Your task to perform on an android device: turn vacation reply on in the gmail app Image 0: 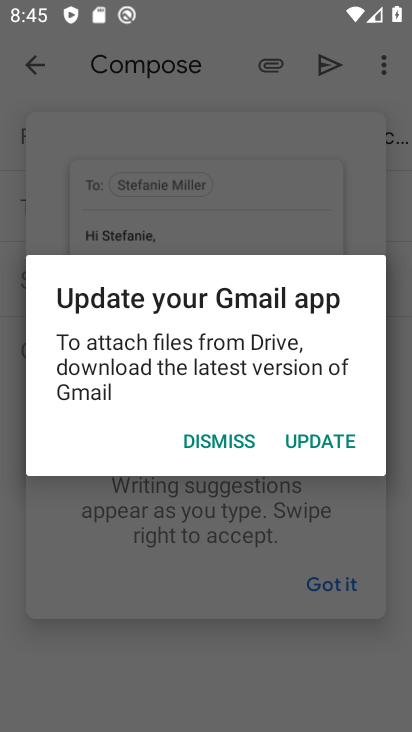
Step 0: click (236, 440)
Your task to perform on an android device: turn vacation reply on in the gmail app Image 1: 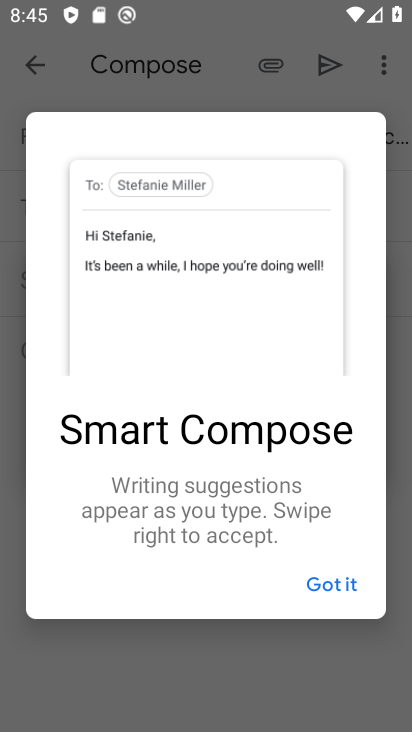
Step 1: click (334, 588)
Your task to perform on an android device: turn vacation reply on in the gmail app Image 2: 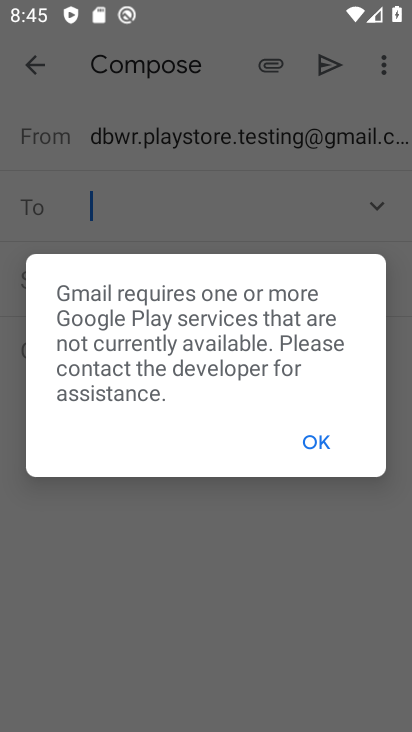
Step 2: click (30, 56)
Your task to perform on an android device: turn vacation reply on in the gmail app Image 3: 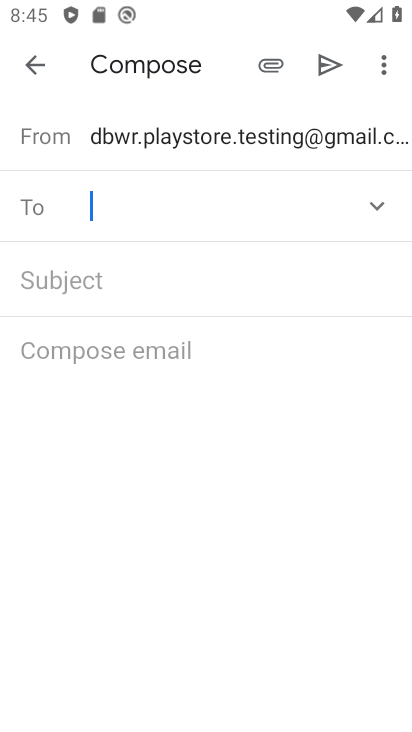
Step 3: click (34, 64)
Your task to perform on an android device: turn vacation reply on in the gmail app Image 4: 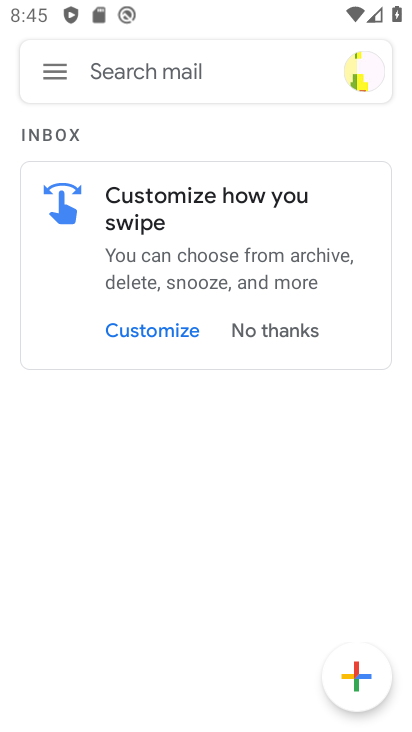
Step 4: click (59, 71)
Your task to perform on an android device: turn vacation reply on in the gmail app Image 5: 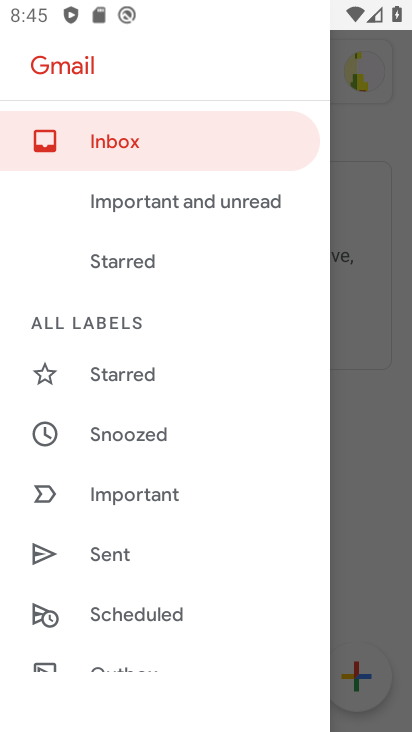
Step 5: drag from (127, 574) to (220, 87)
Your task to perform on an android device: turn vacation reply on in the gmail app Image 6: 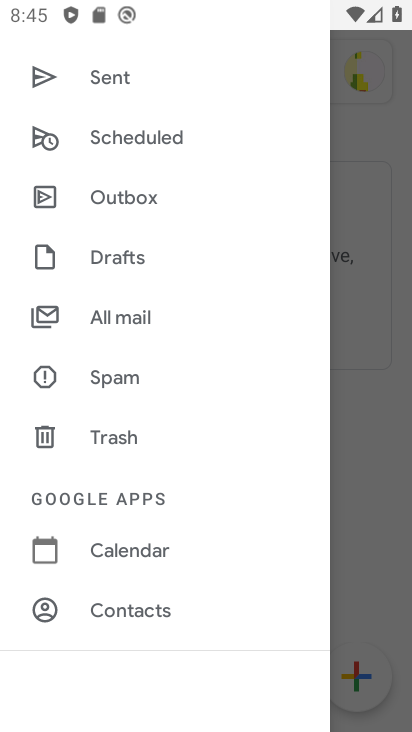
Step 6: drag from (133, 588) to (194, 145)
Your task to perform on an android device: turn vacation reply on in the gmail app Image 7: 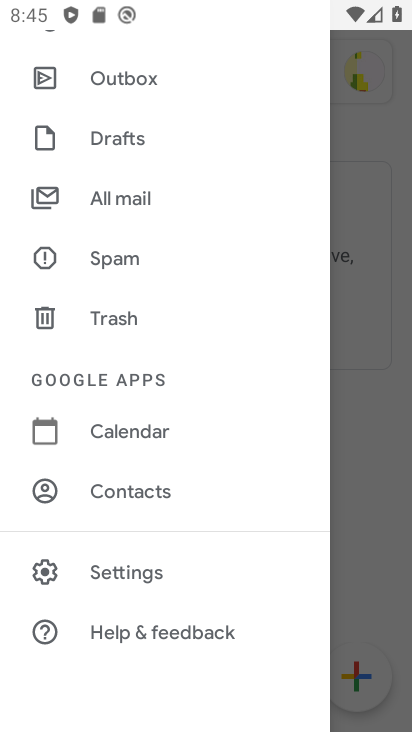
Step 7: click (132, 573)
Your task to perform on an android device: turn vacation reply on in the gmail app Image 8: 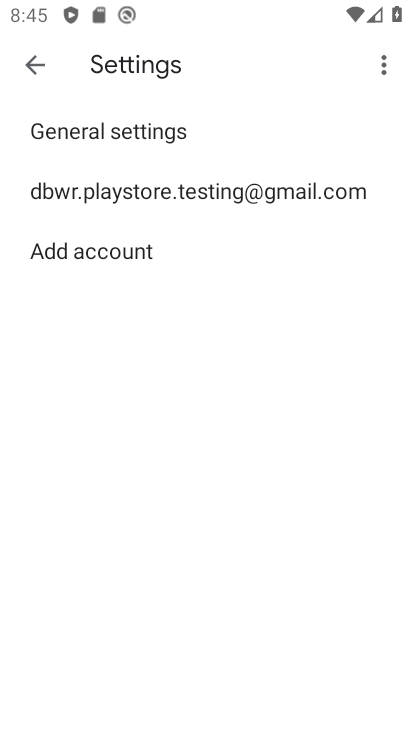
Step 8: click (128, 193)
Your task to perform on an android device: turn vacation reply on in the gmail app Image 9: 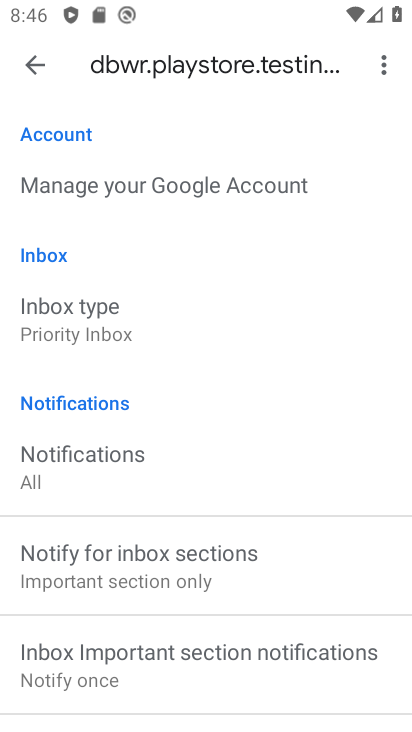
Step 9: drag from (103, 566) to (121, 263)
Your task to perform on an android device: turn vacation reply on in the gmail app Image 10: 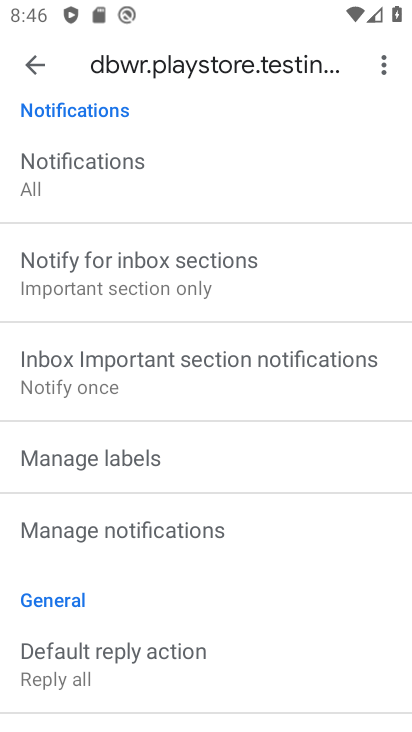
Step 10: drag from (102, 512) to (149, 140)
Your task to perform on an android device: turn vacation reply on in the gmail app Image 11: 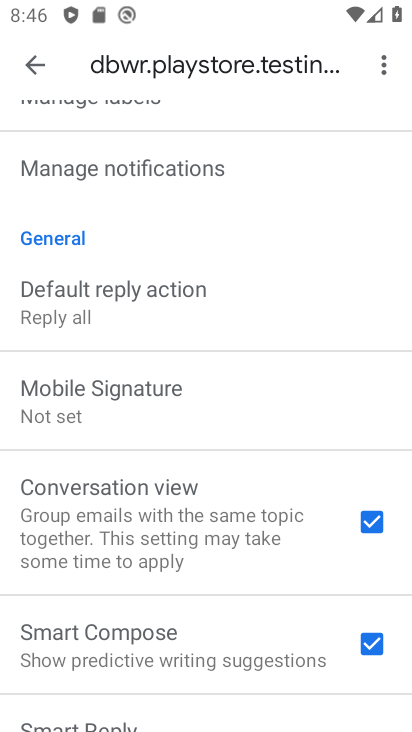
Step 11: drag from (134, 546) to (161, 55)
Your task to perform on an android device: turn vacation reply on in the gmail app Image 12: 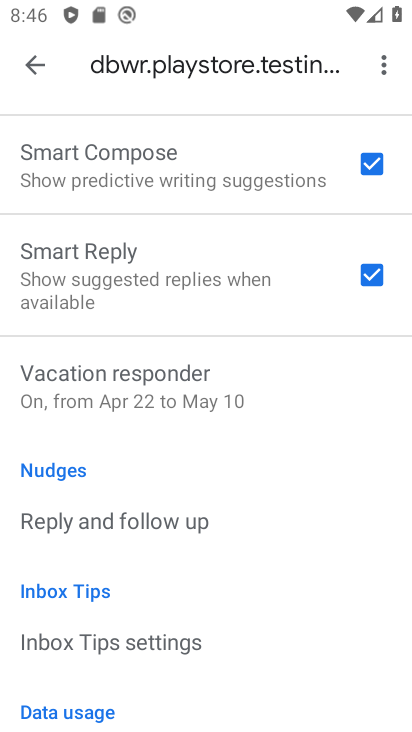
Step 12: click (126, 377)
Your task to perform on an android device: turn vacation reply on in the gmail app Image 13: 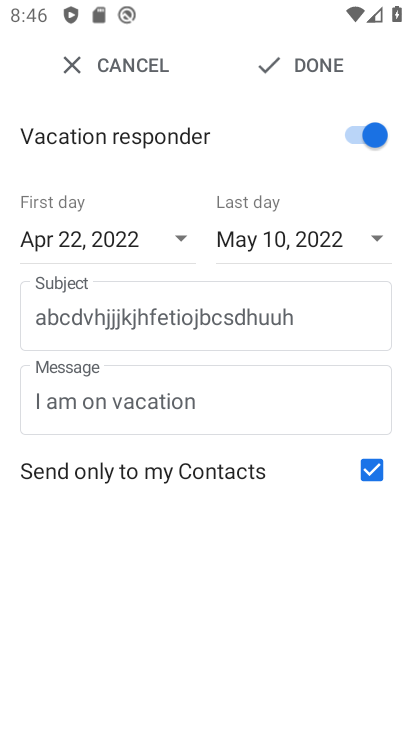
Step 13: task complete